Your task to perform on an android device: toggle improve location accuracy Image 0: 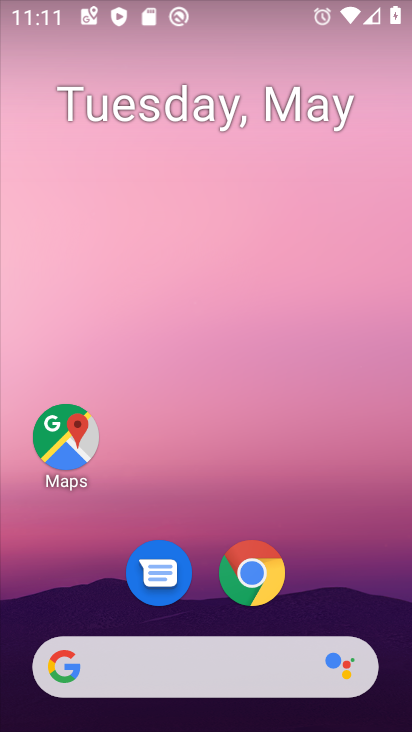
Step 0: drag from (314, 690) to (292, 255)
Your task to perform on an android device: toggle improve location accuracy Image 1: 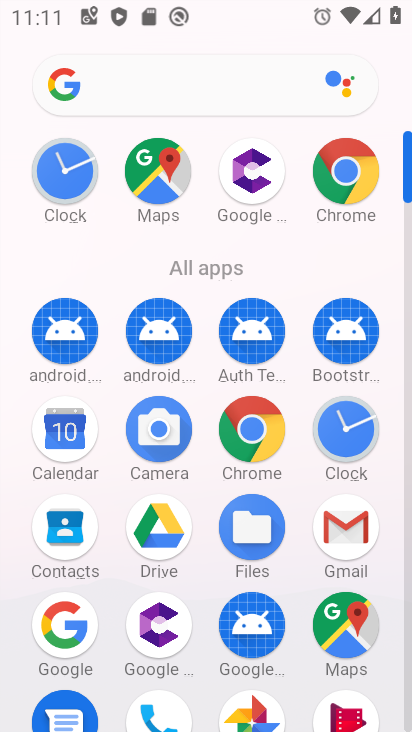
Step 1: drag from (112, 490) to (146, 311)
Your task to perform on an android device: toggle improve location accuracy Image 2: 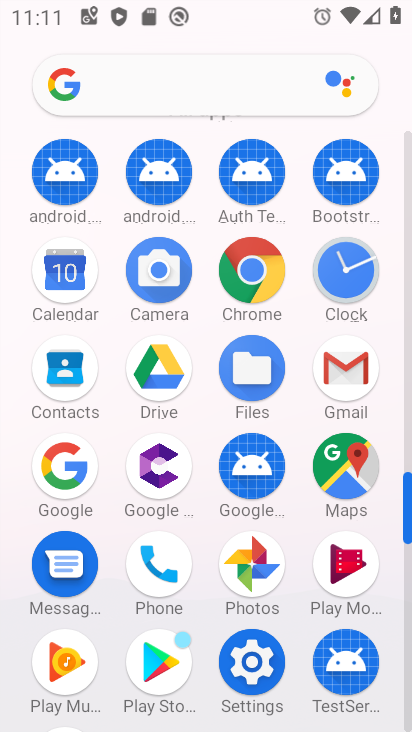
Step 2: click (253, 655)
Your task to perform on an android device: toggle improve location accuracy Image 3: 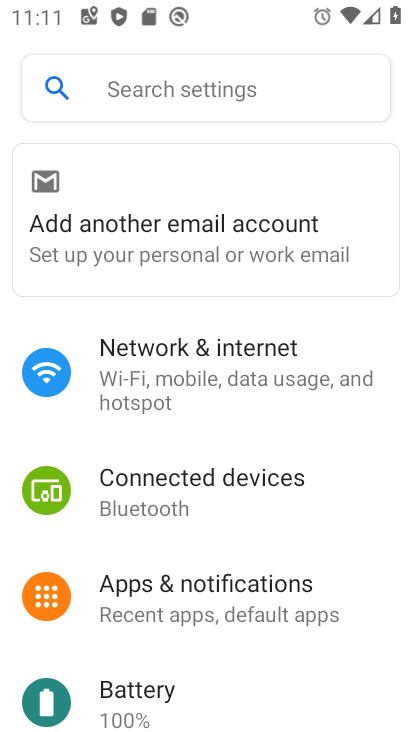
Step 3: click (196, 95)
Your task to perform on an android device: toggle improve location accuracy Image 4: 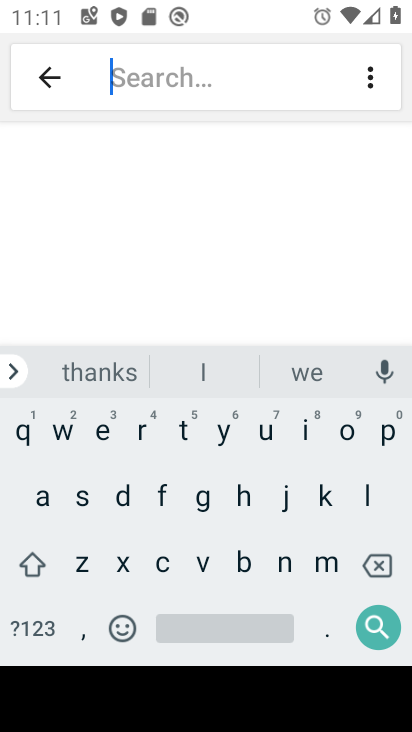
Step 4: click (364, 491)
Your task to perform on an android device: toggle improve location accuracy Image 5: 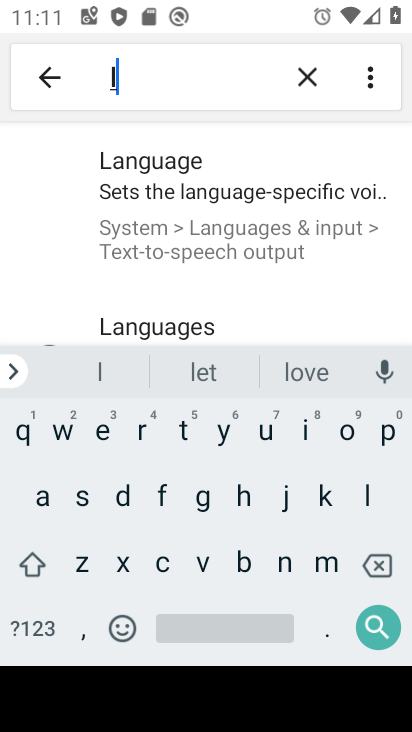
Step 5: click (348, 428)
Your task to perform on an android device: toggle improve location accuracy Image 6: 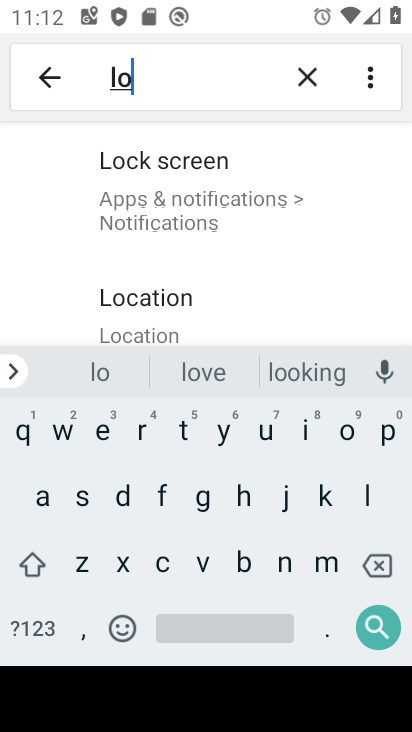
Step 6: click (176, 288)
Your task to perform on an android device: toggle improve location accuracy Image 7: 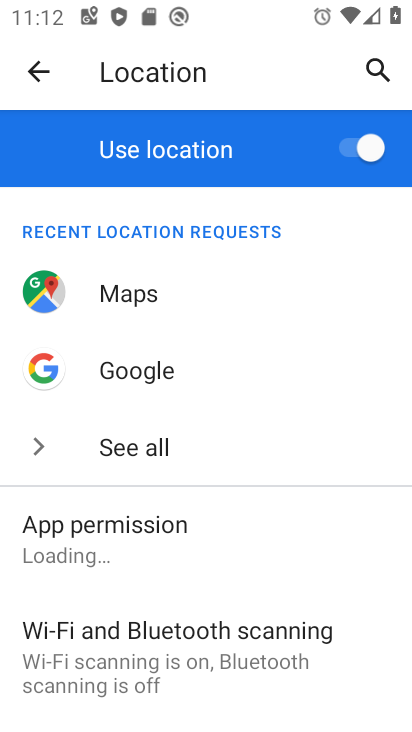
Step 7: drag from (133, 589) to (196, 217)
Your task to perform on an android device: toggle improve location accuracy Image 8: 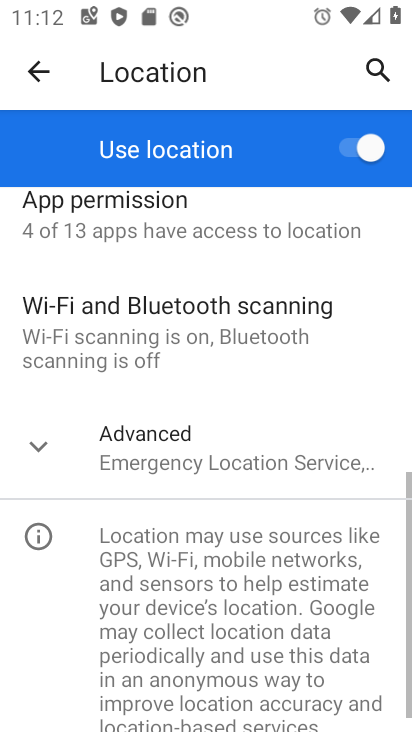
Step 8: click (104, 466)
Your task to perform on an android device: toggle improve location accuracy Image 9: 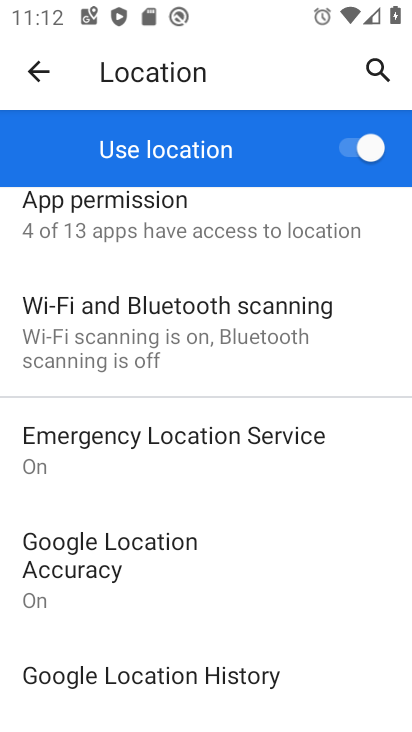
Step 9: click (189, 631)
Your task to perform on an android device: toggle improve location accuracy Image 10: 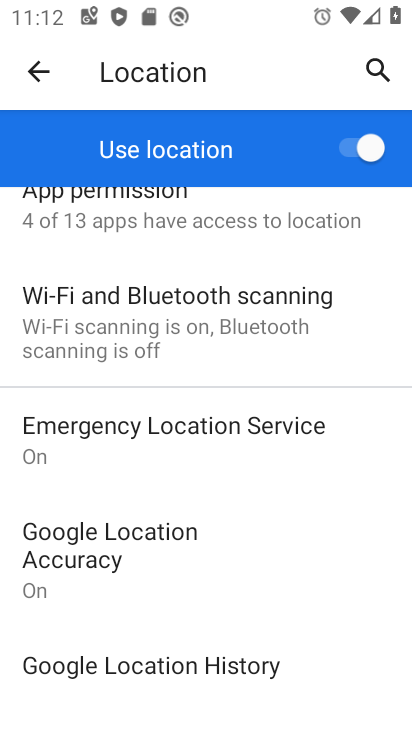
Step 10: click (188, 543)
Your task to perform on an android device: toggle improve location accuracy Image 11: 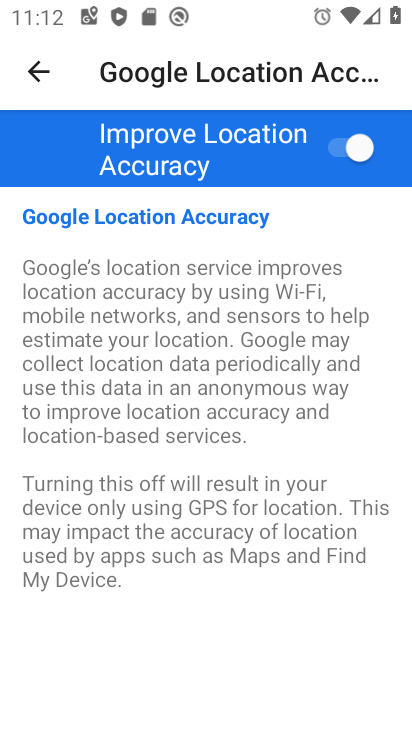
Step 11: task complete